Your task to perform on an android device: turn smart compose on in the gmail app Image 0: 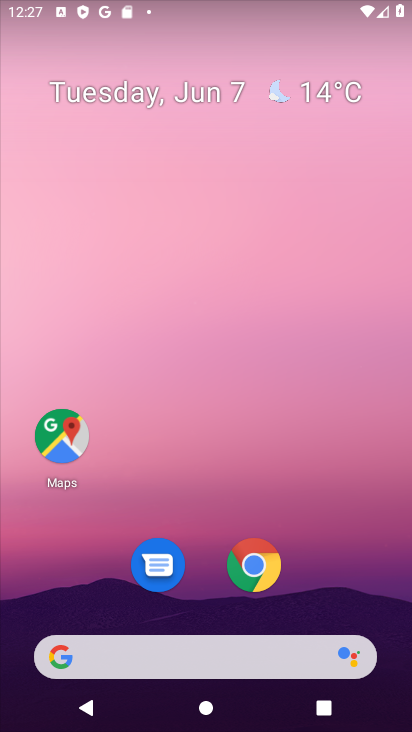
Step 0: drag from (211, 620) to (211, 8)
Your task to perform on an android device: turn smart compose on in the gmail app Image 1: 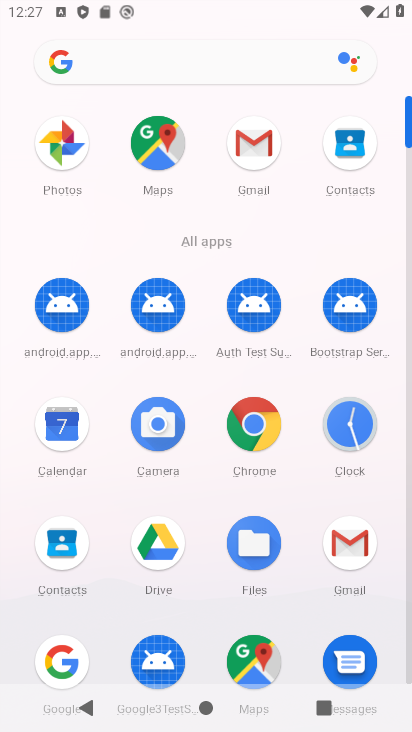
Step 1: click (362, 534)
Your task to perform on an android device: turn smart compose on in the gmail app Image 2: 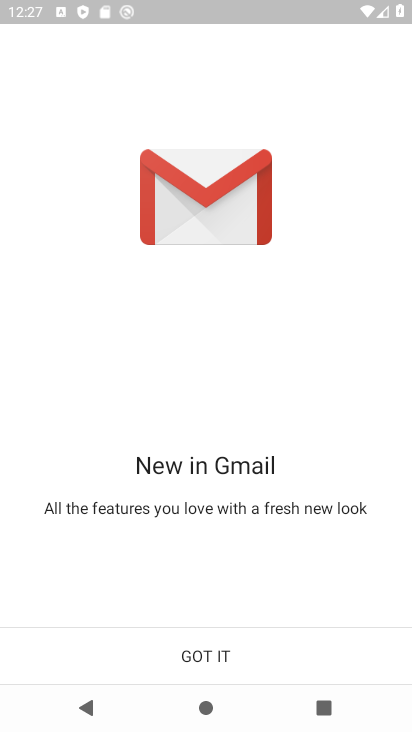
Step 2: click (253, 640)
Your task to perform on an android device: turn smart compose on in the gmail app Image 3: 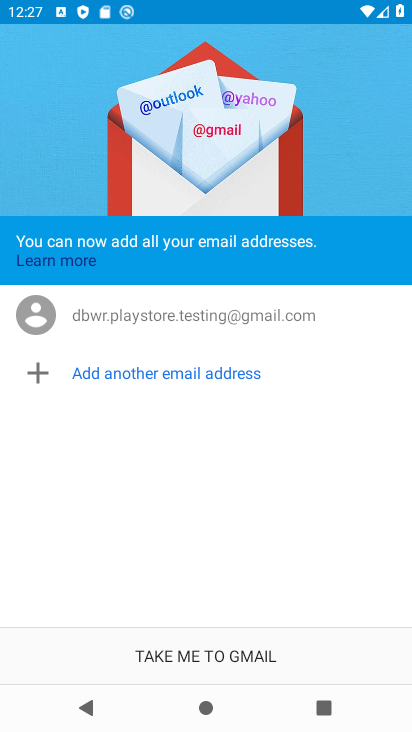
Step 3: click (260, 653)
Your task to perform on an android device: turn smart compose on in the gmail app Image 4: 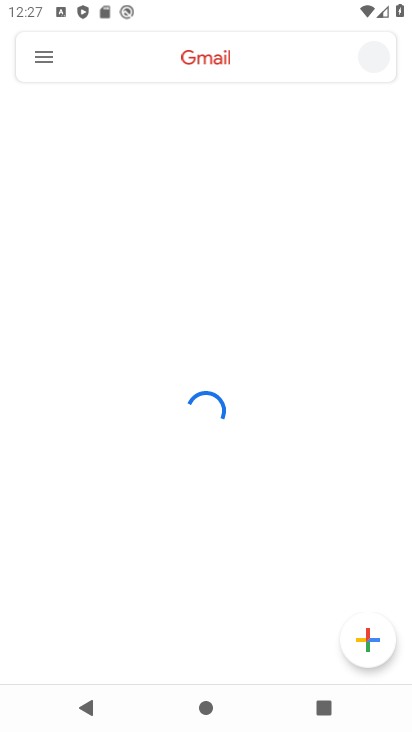
Step 4: click (37, 56)
Your task to perform on an android device: turn smart compose on in the gmail app Image 5: 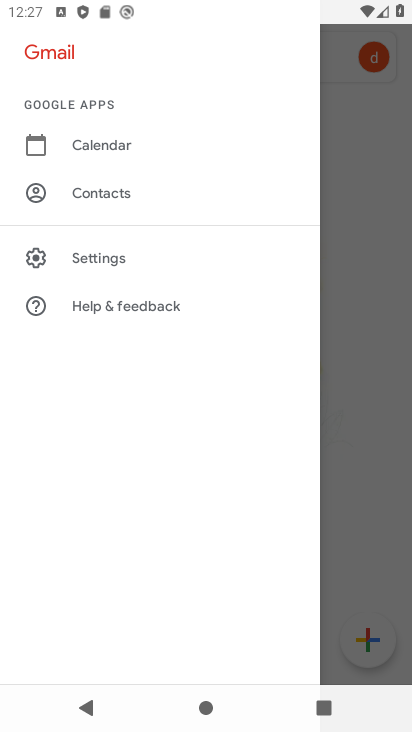
Step 5: click (132, 256)
Your task to perform on an android device: turn smart compose on in the gmail app Image 6: 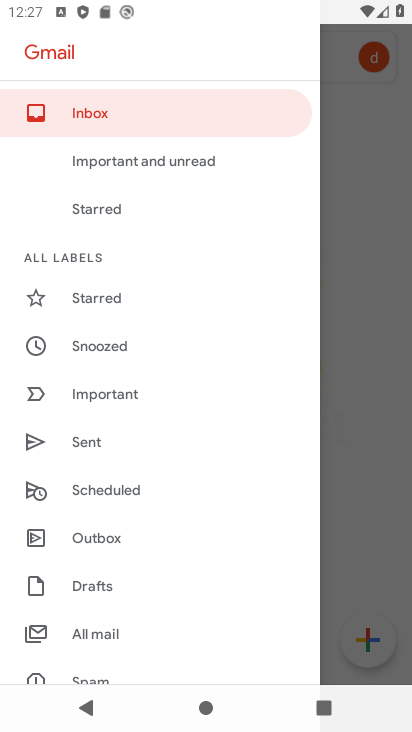
Step 6: drag from (212, 625) to (228, 93)
Your task to perform on an android device: turn smart compose on in the gmail app Image 7: 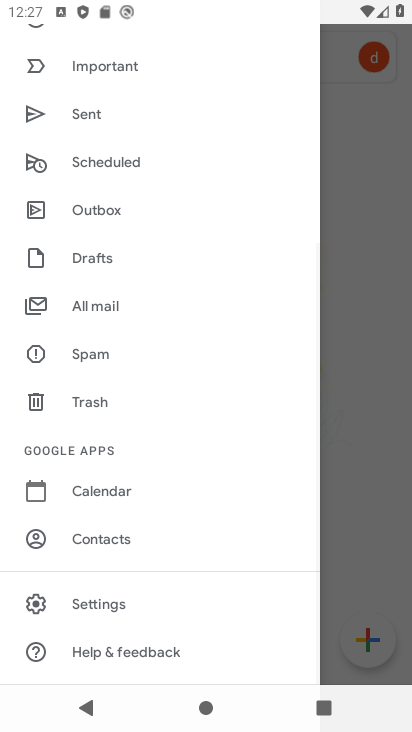
Step 7: click (129, 616)
Your task to perform on an android device: turn smart compose on in the gmail app Image 8: 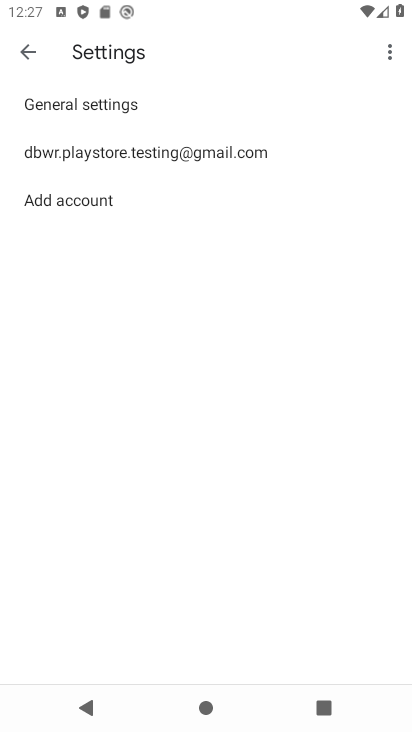
Step 8: click (223, 137)
Your task to perform on an android device: turn smart compose on in the gmail app Image 9: 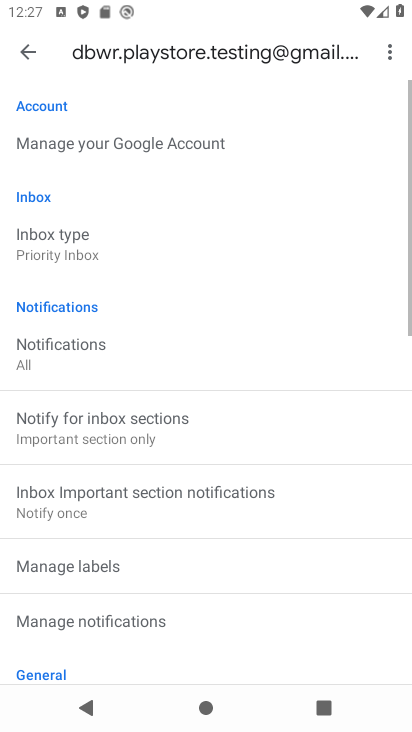
Step 9: task complete